Your task to perform on an android device: Open the stopwatch Image 0: 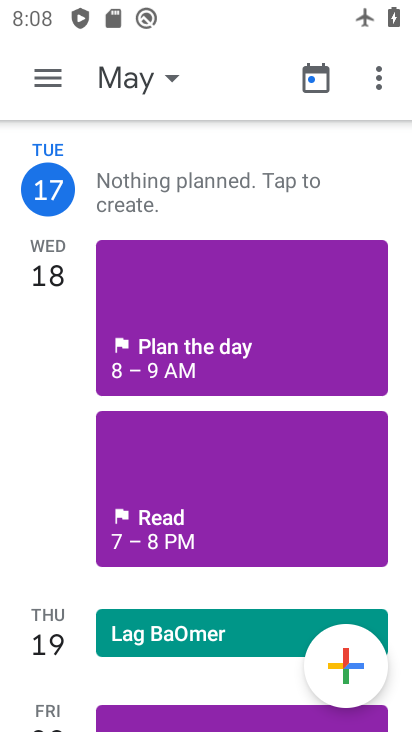
Step 0: press home button
Your task to perform on an android device: Open the stopwatch Image 1: 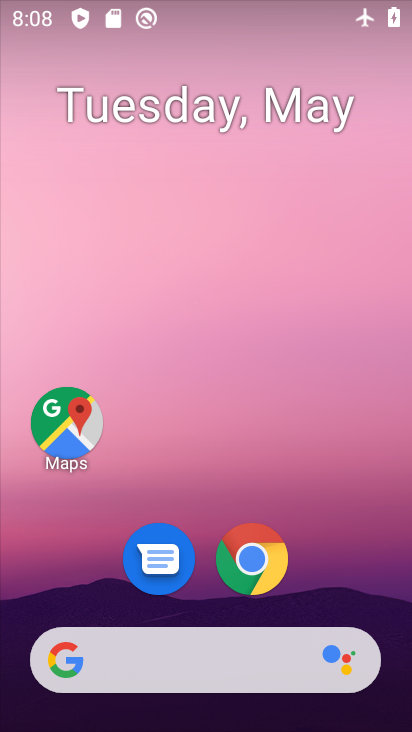
Step 1: drag from (224, 610) to (216, 245)
Your task to perform on an android device: Open the stopwatch Image 2: 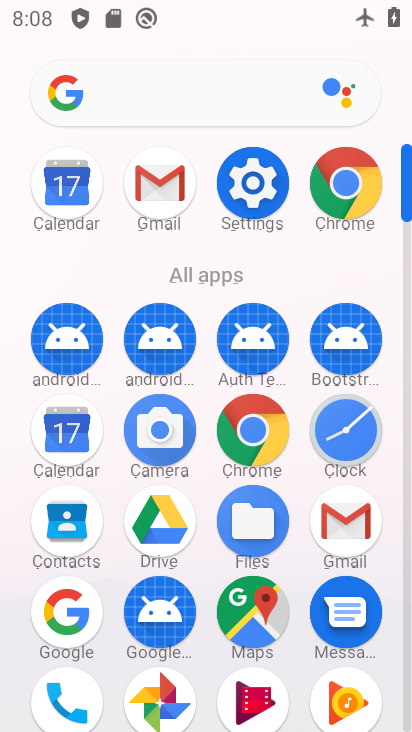
Step 2: click (356, 438)
Your task to perform on an android device: Open the stopwatch Image 3: 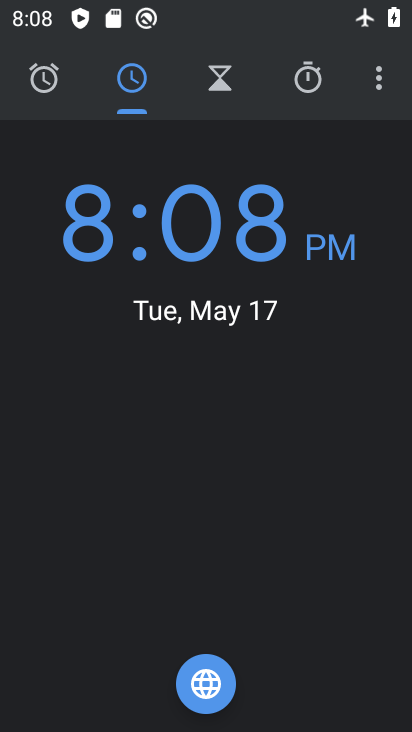
Step 3: click (298, 72)
Your task to perform on an android device: Open the stopwatch Image 4: 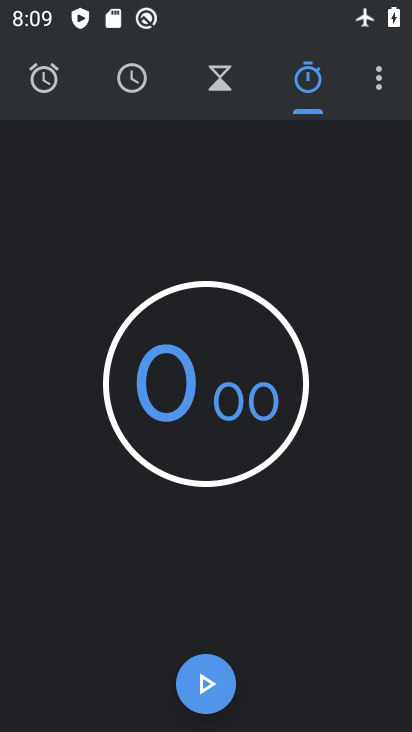
Step 4: task complete